Your task to perform on an android device: set an alarm Image 0: 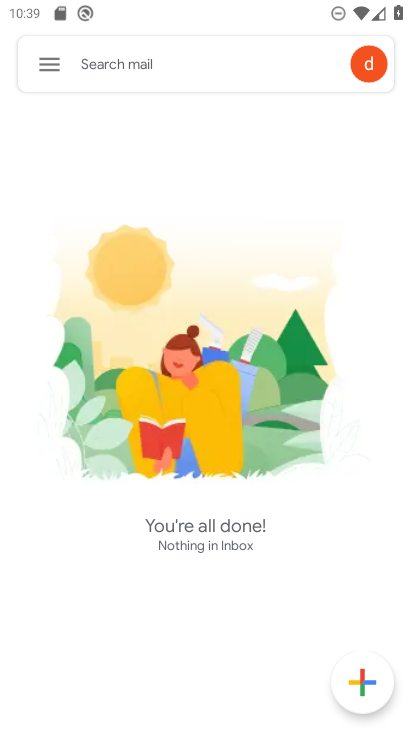
Step 0: press home button
Your task to perform on an android device: set an alarm Image 1: 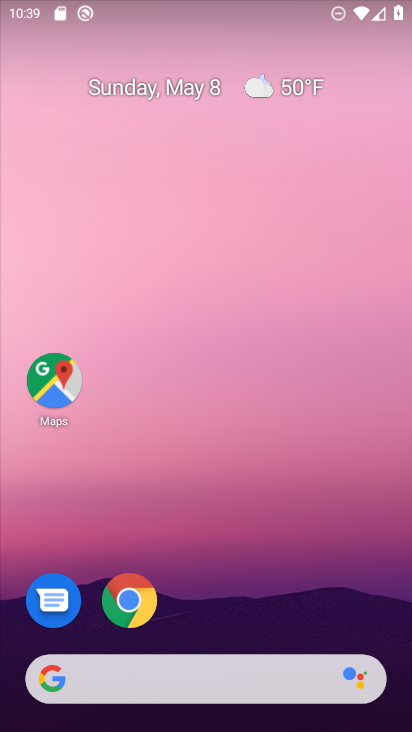
Step 1: drag from (214, 726) to (207, 278)
Your task to perform on an android device: set an alarm Image 2: 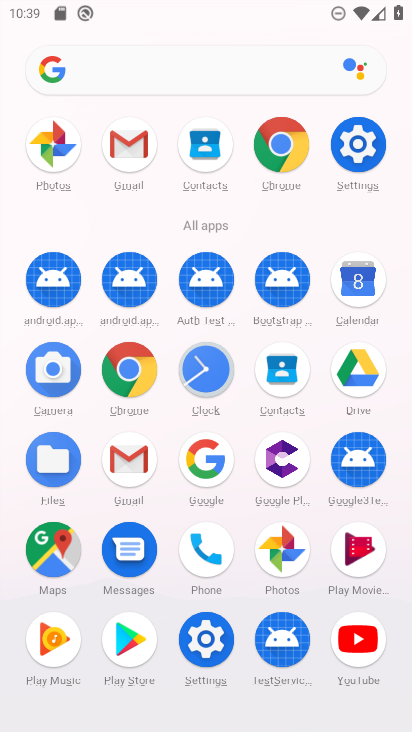
Step 2: click (203, 378)
Your task to perform on an android device: set an alarm Image 3: 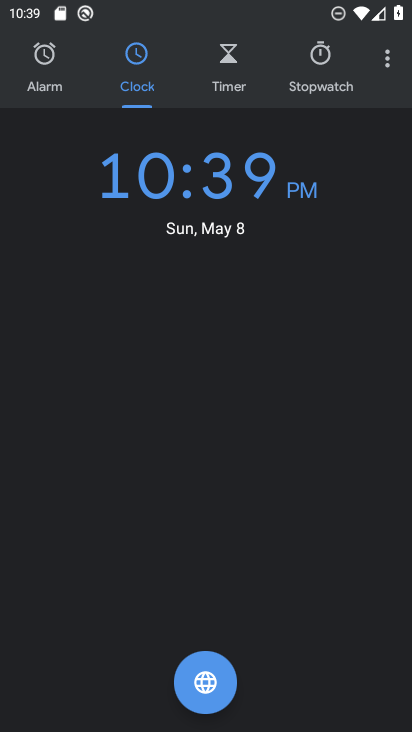
Step 3: click (47, 63)
Your task to perform on an android device: set an alarm Image 4: 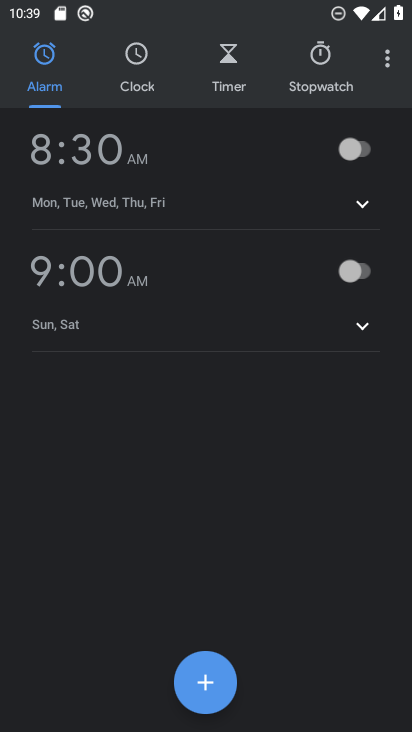
Step 4: click (208, 683)
Your task to perform on an android device: set an alarm Image 5: 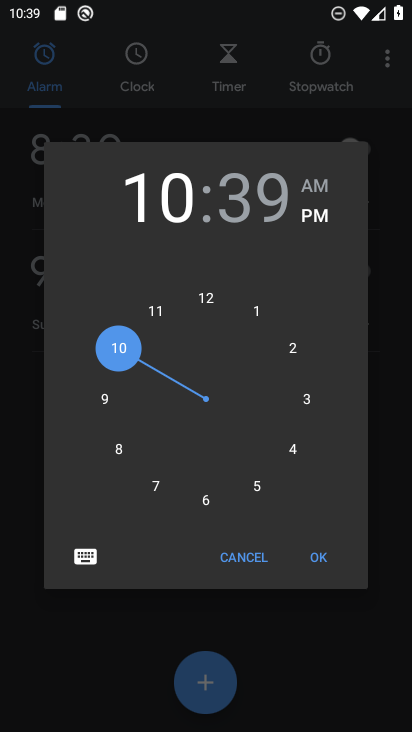
Step 5: click (208, 298)
Your task to perform on an android device: set an alarm Image 6: 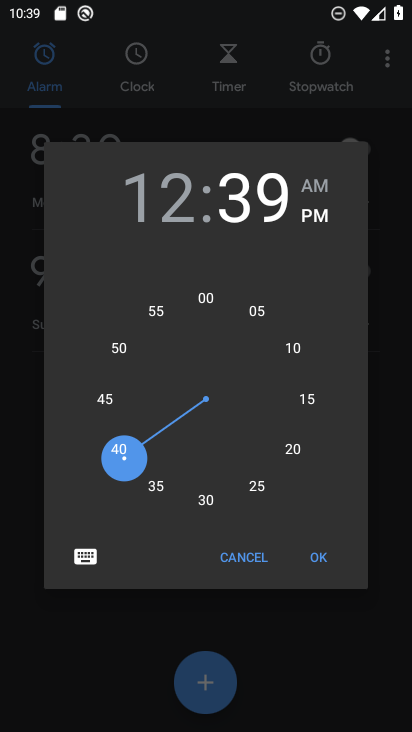
Step 6: drag from (114, 462) to (334, 464)
Your task to perform on an android device: set an alarm Image 7: 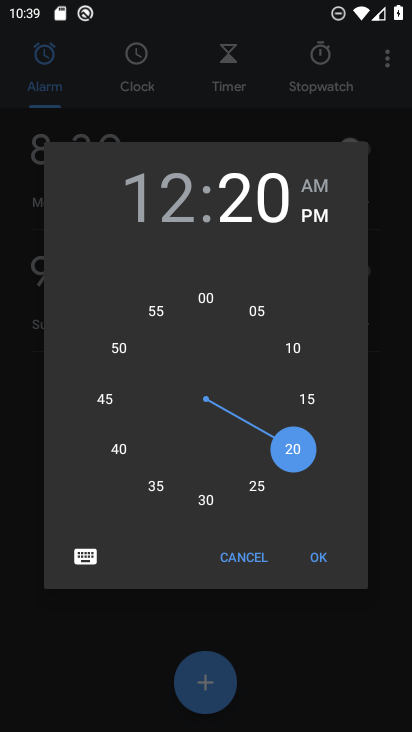
Step 7: click (317, 554)
Your task to perform on an android device: set an alarm Image 8: 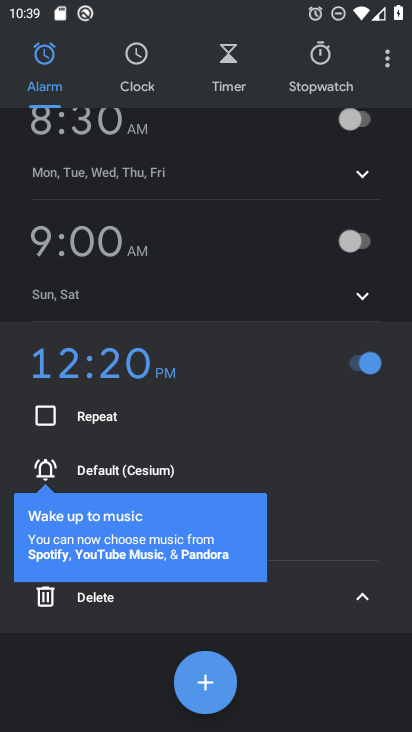
Step 8: task complete